Your task to perform on an android device: turn off location Image 0: 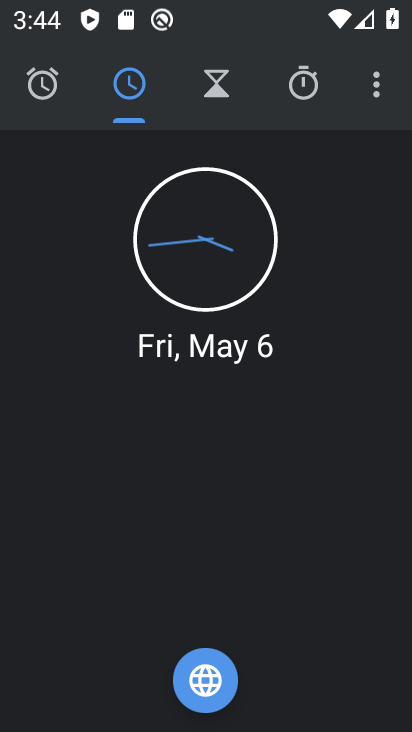
Step 0: press back button
Your task to perform on an android device: turn off location Image 1: 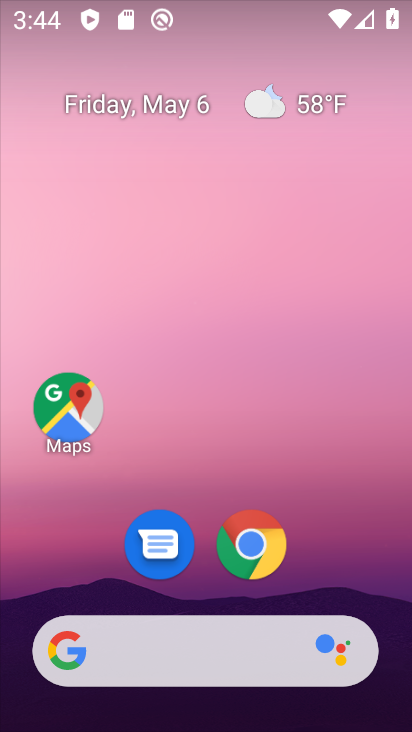
Step 1: drag from (172, 613) to (257, 90)
Your task to perform on an android device: turn off location Image 2: 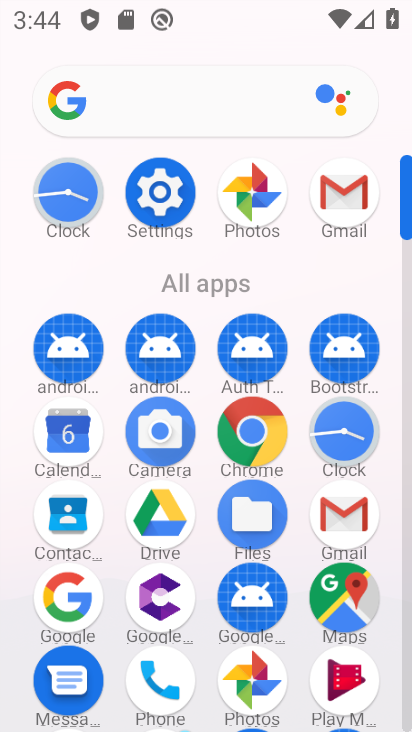
Step 2: drag from (147, 640) to (221, 297)
Your task to perform on an android device: turn off location Image 3: 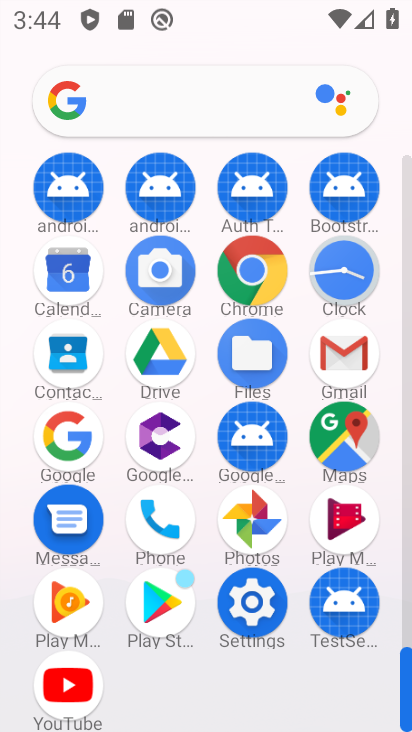
Step 3: click (251, 607)
Your task to perform on an android device: turn off location Image 4: 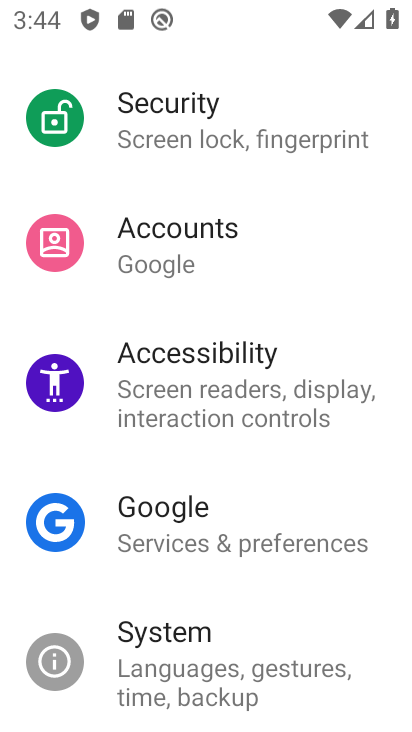
Step 4: drag from (229, 241) to (154, 611)
Your task to perform on an android device: turn off location Image 5: 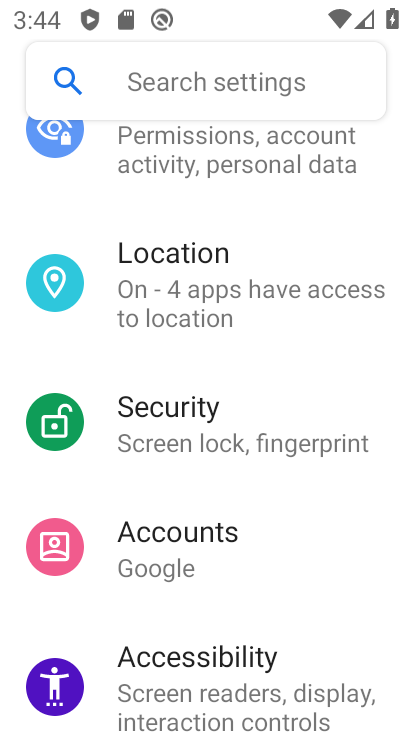
Step 5: click (163, 317)
Your task to perform on an android device: turn off location Image 6: 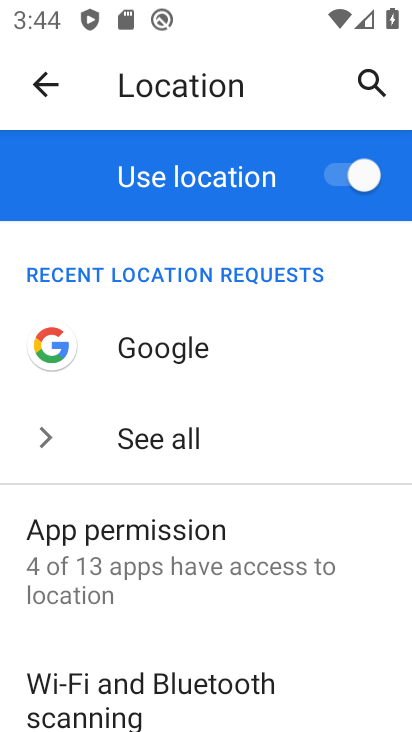
Step 6: click (340, 184)
Your task to perform on an android device: turn off location Image 7: 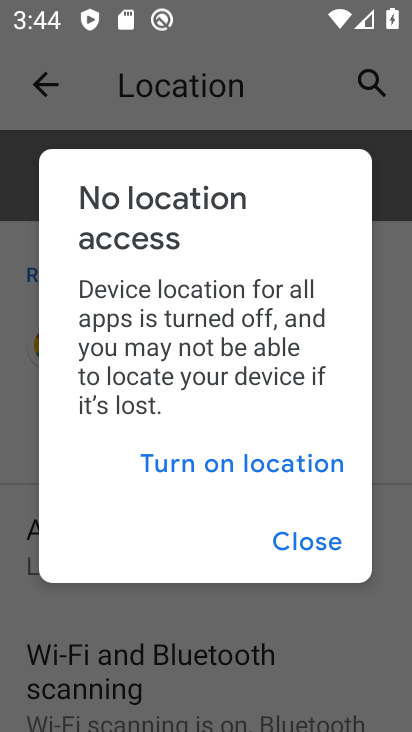
Step 7: click (321, 546)
Your task to perform on an android device: turn off location Image 8: 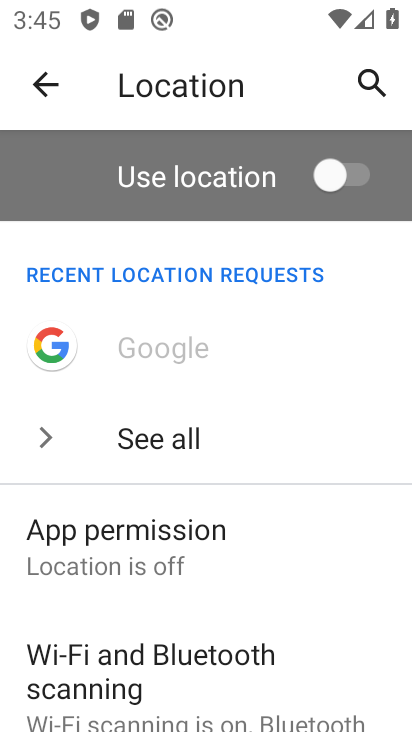
Step 8: task complete